Your task to perform on an android device: turn on the 12-hour format for clock Image 0: 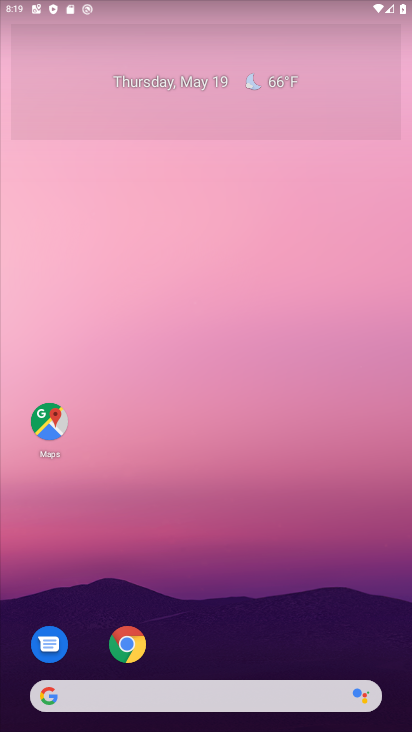
Step 0: drag from (270, 625) to (268, 227)
Your task to perform on an android device: turn on the 12-hour format for clock Image 1: 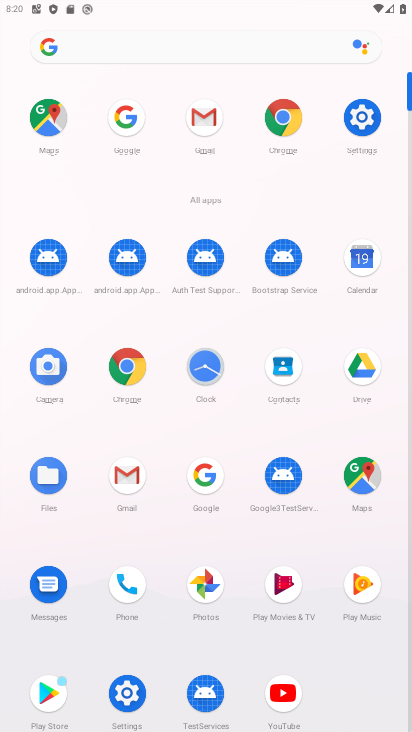
Step 1: click (201, 367)
Your task to perform on an android device: turn on the 12-hour format for clock Image 2: 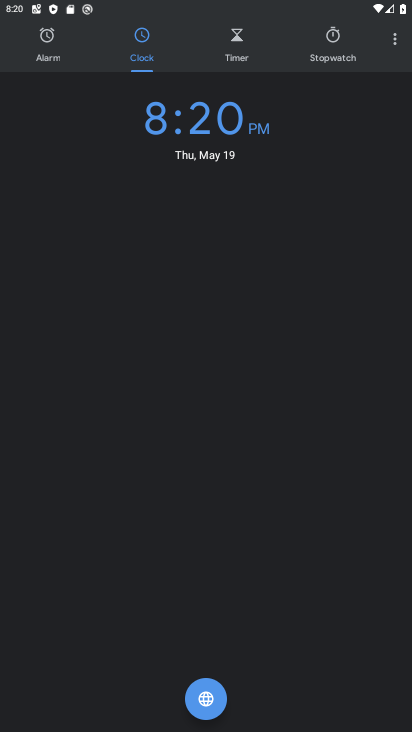
Step 2: drag from (389, 52) to (325, 76)
Your task to perform on an android device: turn on the 12-hour format for clock Image 3: 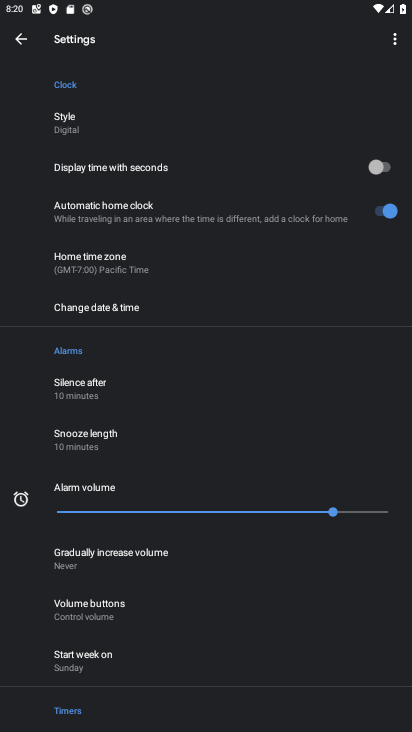
Step 3: drag from (248, 624) to (263, 308)
Your task to perform on an android device: turn on the 12-hour format for clock Image 4: 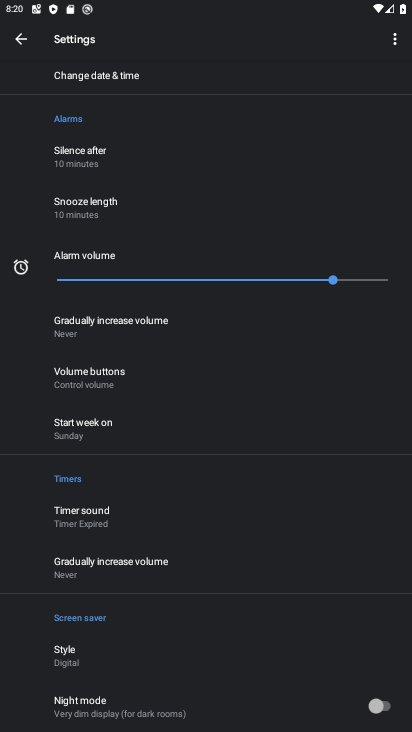
Step 4: drag from (244, 594) to (229, 324)
Your task to perform on an android device: turn on the 12-hour format for clock Image 5: 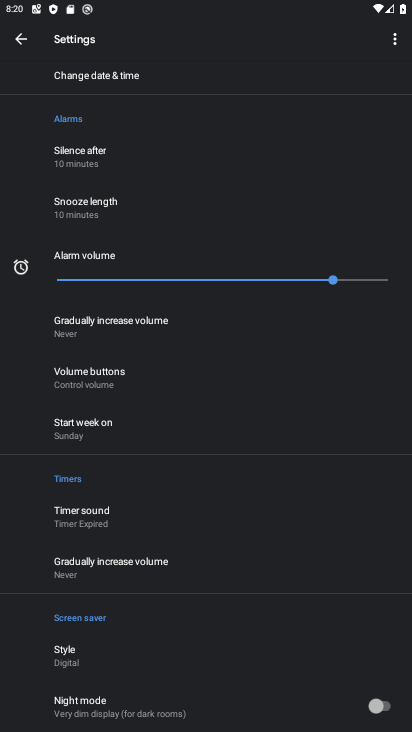
Step 5: click (122, 75)
Your task to perform on an android device: turn on the 12-hour format for clock Image 6: 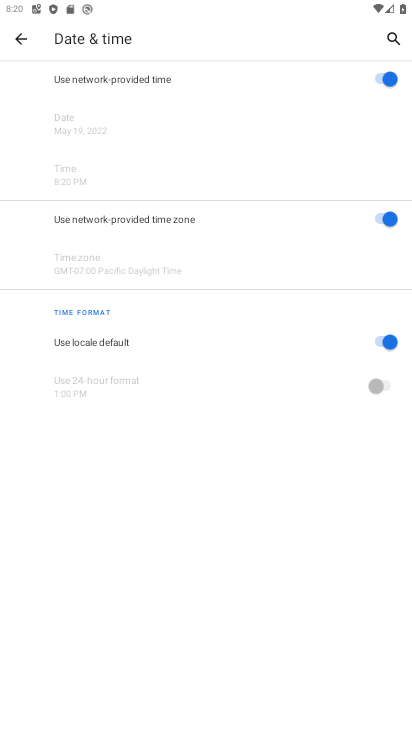
Step 6: task complete